Your task to perform on an android device: What is the news today? Image 0: 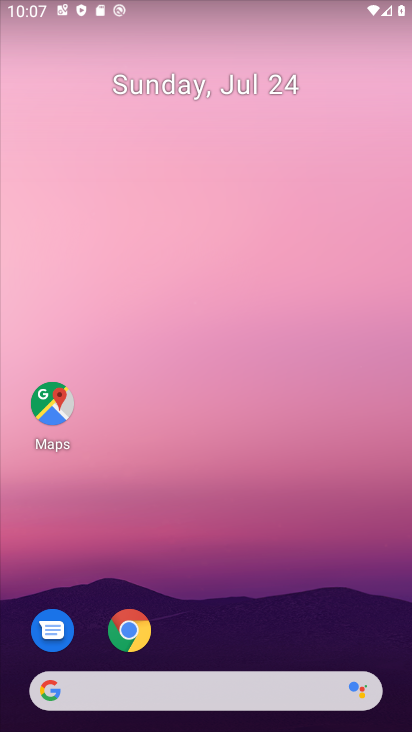
Step 0: drag from (202, 633) to (186, 329)
Your task to perform on an android device: What is the news today? Image 1: 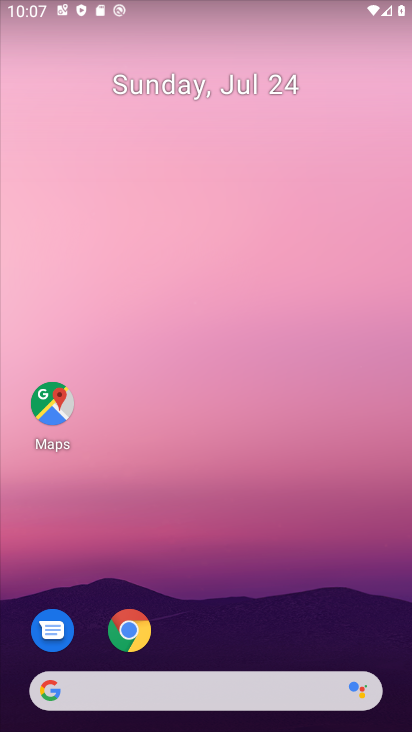
Step 1: drag from (197, 644) to (204, 21)
Your task to perform on an android device: What is the news today? Image 2: 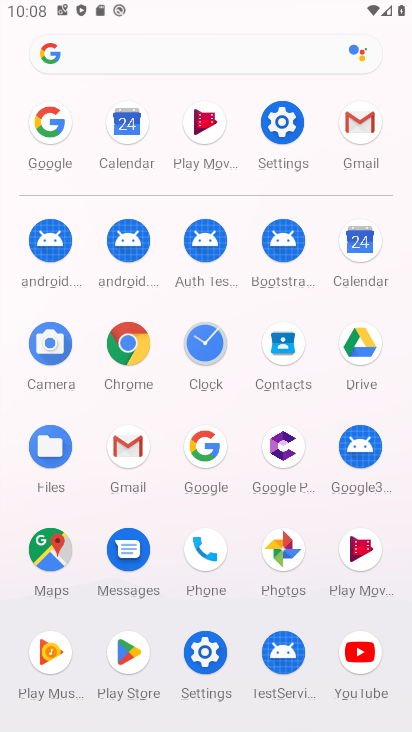
Step 2: click (200, 447)
Your task to perform on an android device: What is the news today? Image 3: 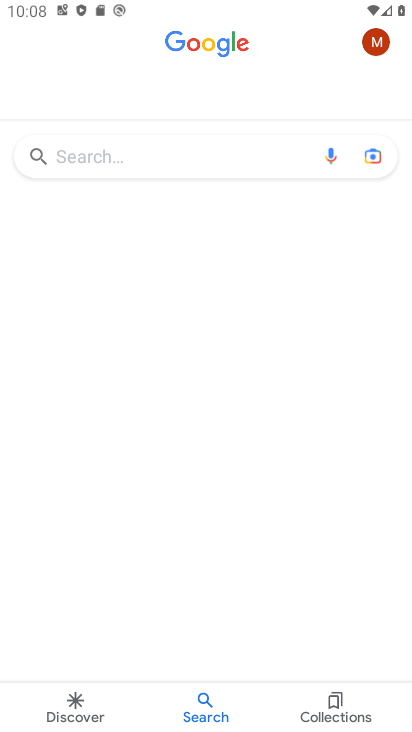
Step 3: click (134, 162)
Your task to perform on an android device: What is the news today? Image 4: 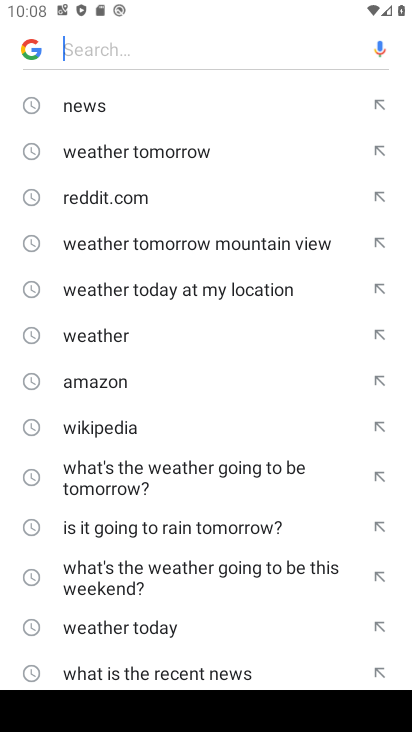
Step 4: click (98, 110)
Your task to perform on an android device: What is the news today? Image 5: 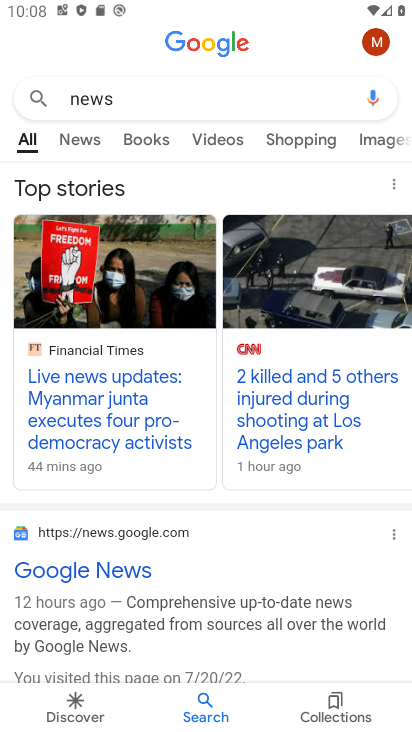
Step 5: click (82, 139)
Your task to perform on an android device: What is the news today? Image 6: 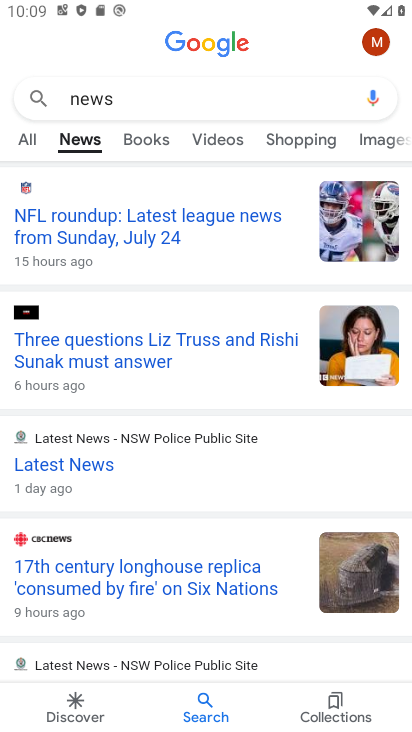
Step 6: task complete